Your task to perform on an android device: turn off notifications in google photos Image 0: 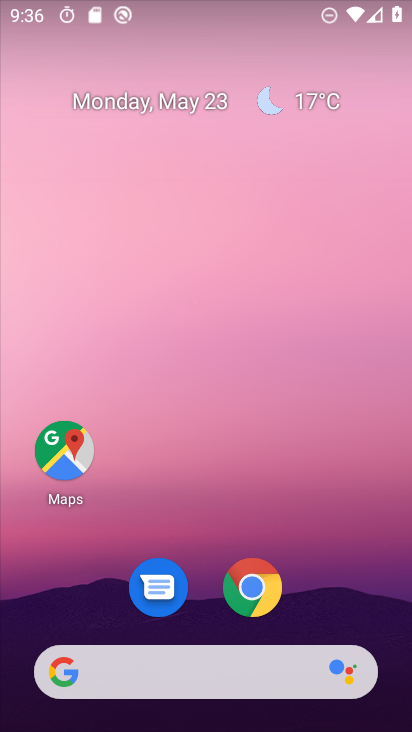
Step 0: drag from (205, 525) to (276, 80)
Your task to perform on an android device: turn off notifications in google photos Image 1: 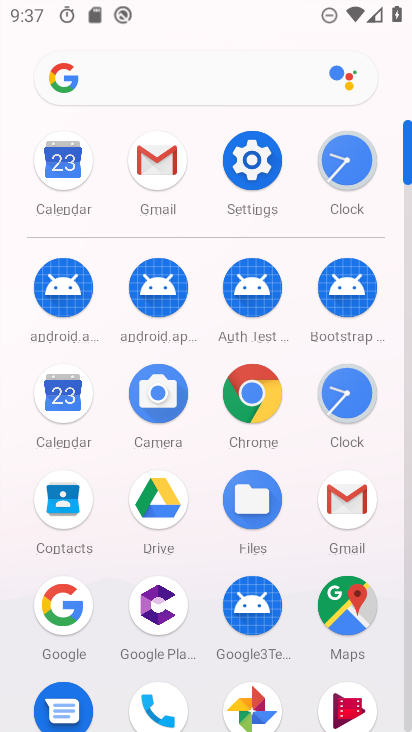
Step 1: click (262, 706)
Your task to perform on an android device: turn off notifications in google photos Image 2: 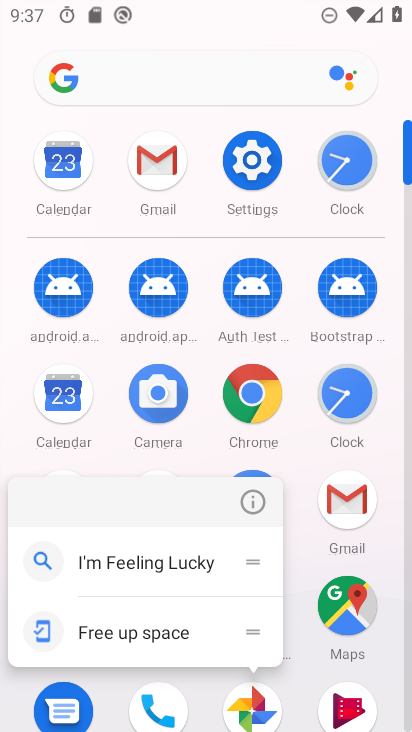
Step 2: click (255, 500)
Your task to perform on an android device: turn off notifications in google photos Image 3: 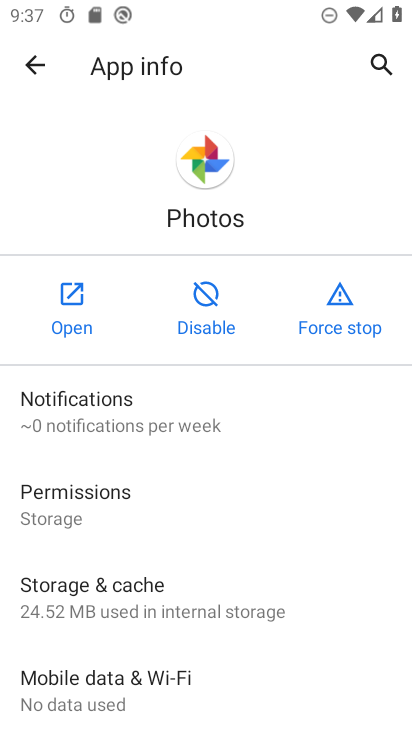
Step 3: click (86, 401)
Your task to perform on an android device: turn off notifications in google photos Image 4: 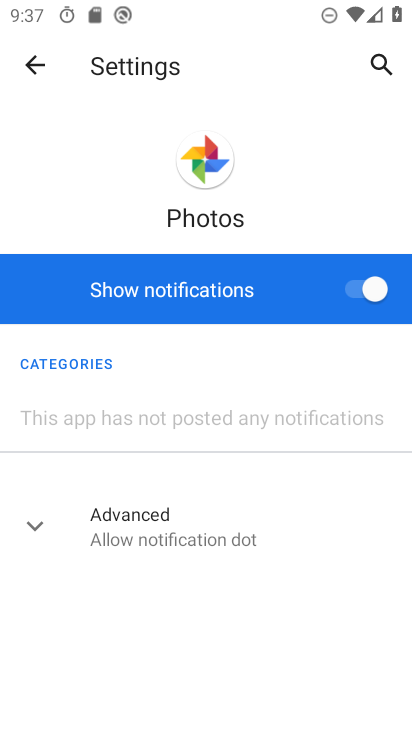
Step 4: click (371, 287)
Your task to perform on an android device: turn off notifications in google photos Image 5: 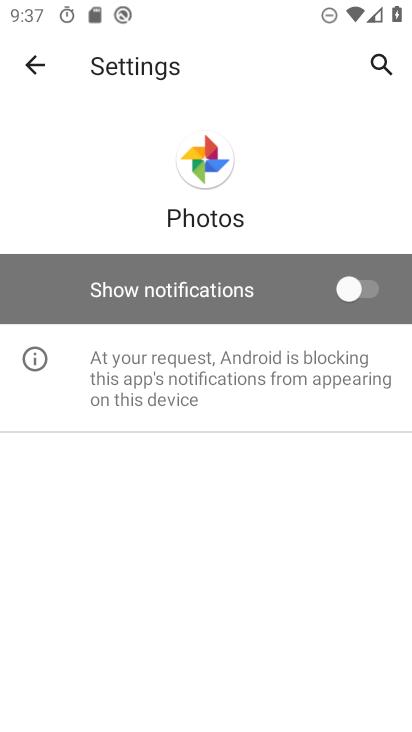
Step 5: task complete